Your task to perform on an android device: Open calendar and show me the fourth week of next month Image 0: 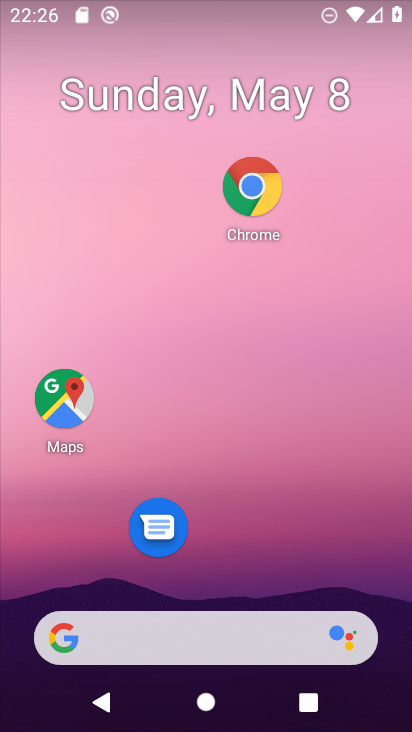
Step 0: drag from (280, 521) to (294, 174)
Your task to perform on an android device: Open calendar and show me the fourth week of next month Image 1: 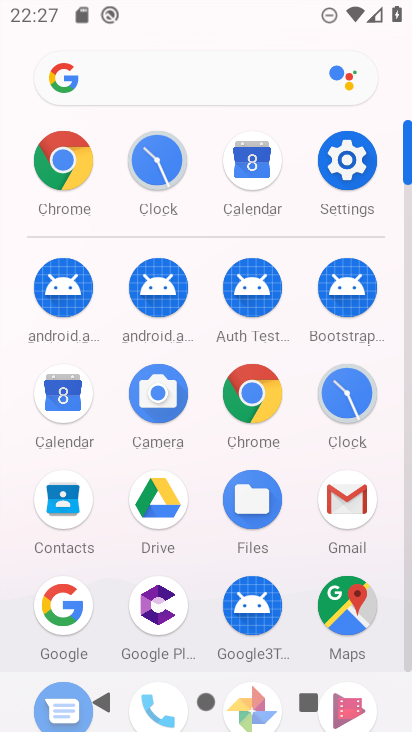
Step 1: click (239, 162)
Your task to perform on an android device: Open calendar and show me the fourth week of next month Image 2: 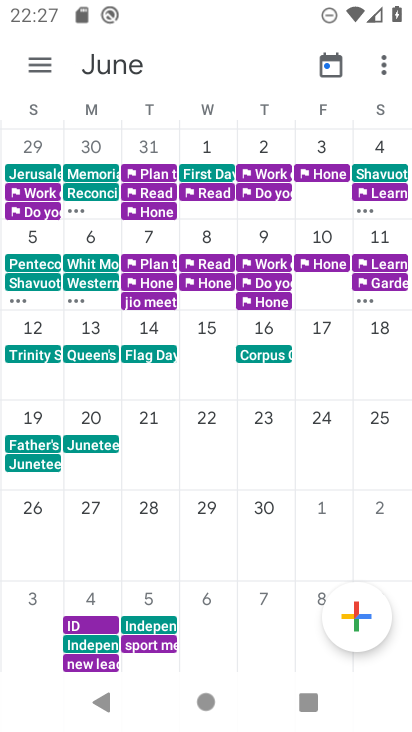
Step 2: click (32, 414)
Your task to perform on an android device: Open calendar and show me the fourth week of next month Image 3: 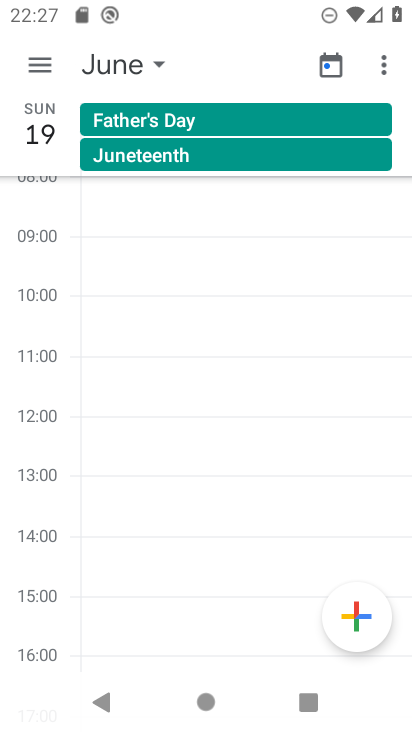
Step 3: click (39, 59)
Your task to perform on an android device: Open calendar and show me the fourth week of next month Image 4: 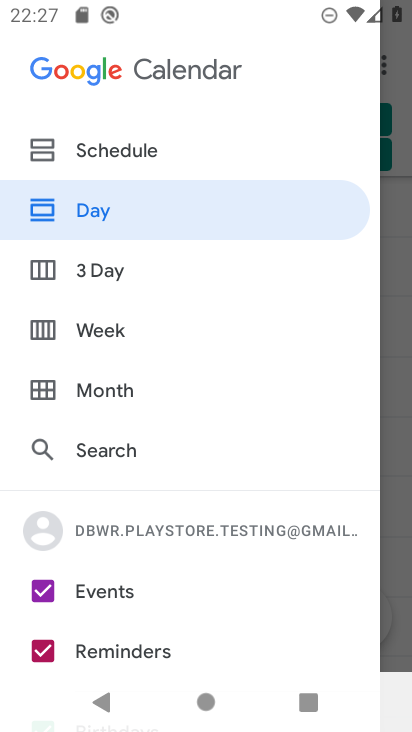
Step 4: click (129, 324)
Your task to perform on an android device: Open calendar and show me the fourth week of next month Image 5: 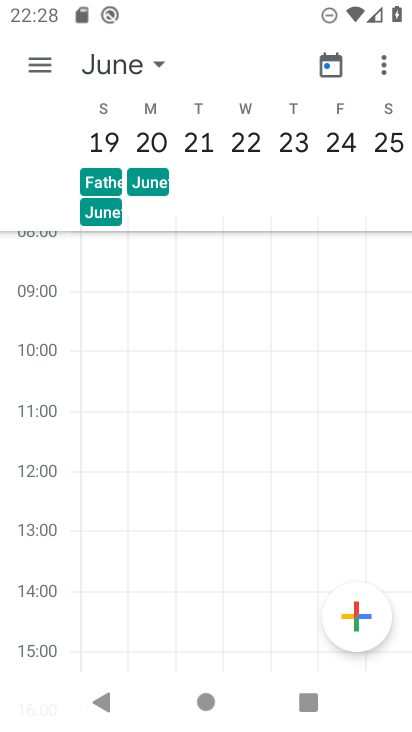
Step 5: task complete